Your task to perform on an android device: What's the weather today? Image 0: 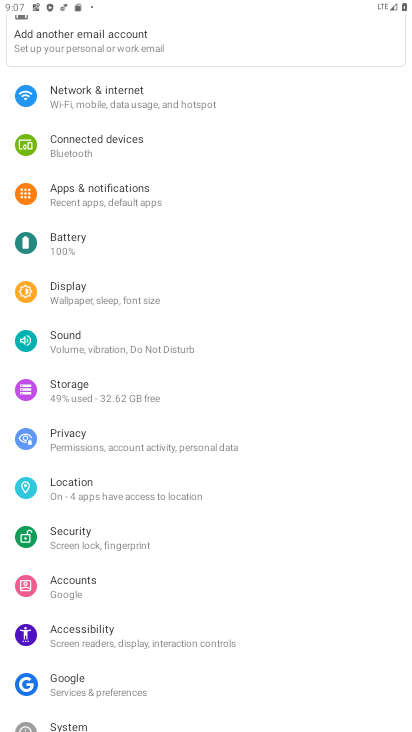
Step 0: press home button
Your task to perform on an android device: What's the weather today? Image 1: 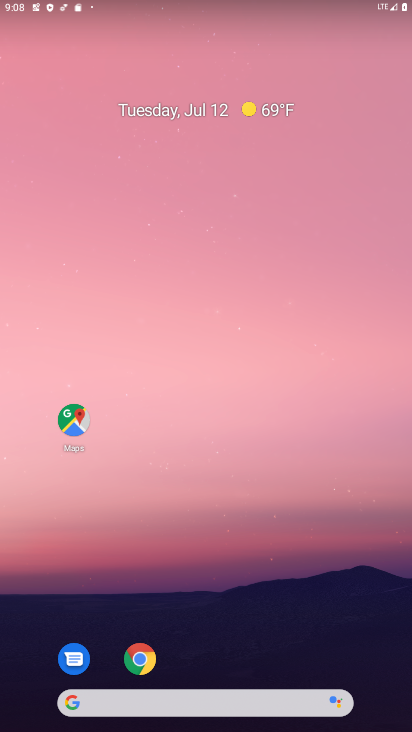
Step 1: click (250, 111)
Your task to perform on an android device: What's the weather today? Image 2: 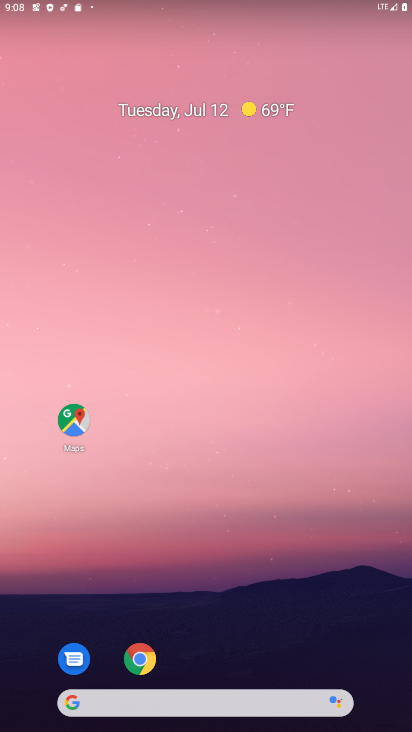
Step 2: click (250, 102)
Your task to perform on an android device: What's the weather today? Image 3: 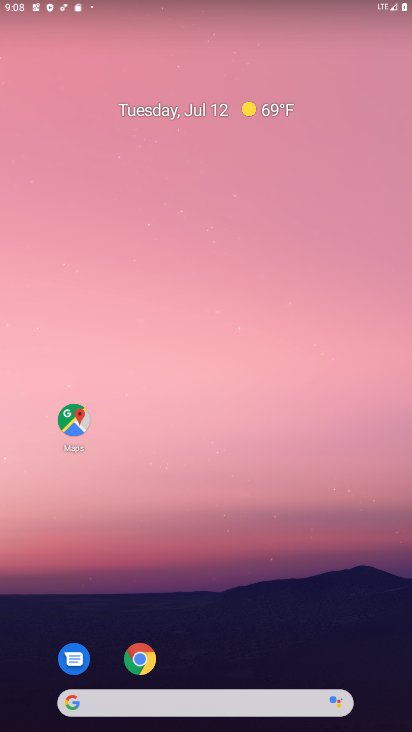
Step 3: click (250, 102)
Your task to perform on an android device: What's the weather today? Image 4: 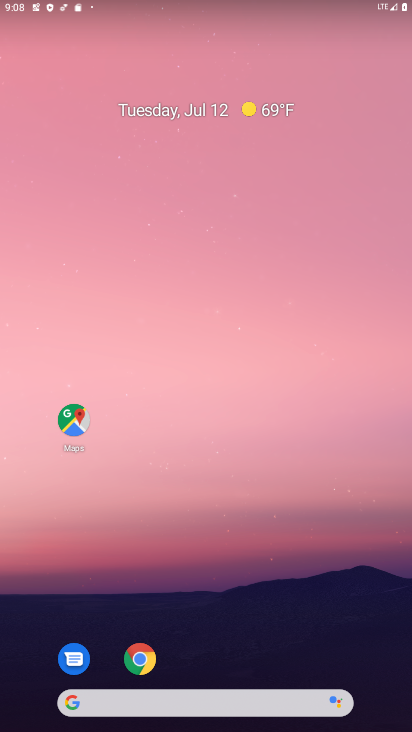
Step 4: click (249, 111)
Your task to perform on an android device: What's the weather today? Image 5: 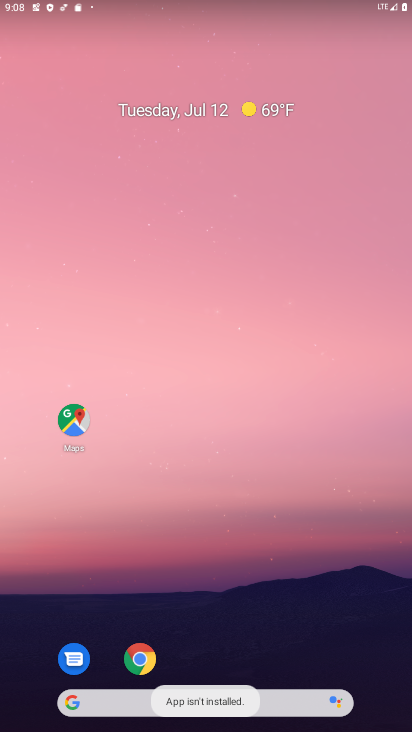
Step 5: click (249, 111)
Your task to perform on an android device: What's the weather today? Image 6: 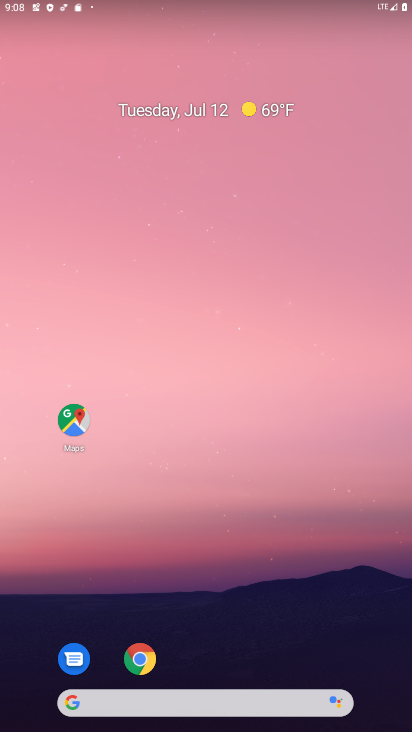
Step 6: click (249, 111)
Your task to perform on an android device: What's the weather today? Image 7: 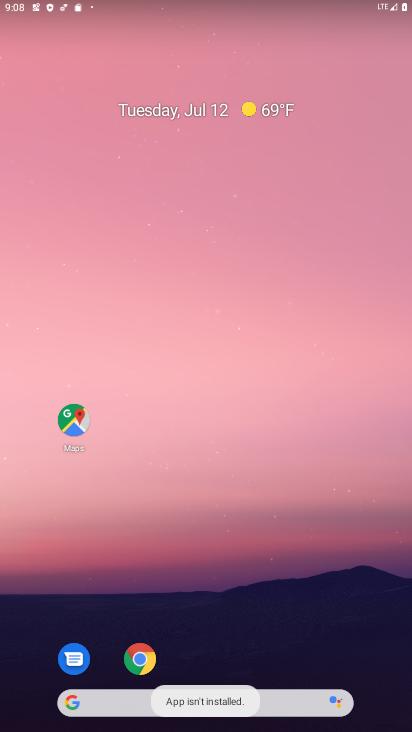
Step 7: click (249, 111)
Your task to perform on an android device: What's the weather today? Image 8: 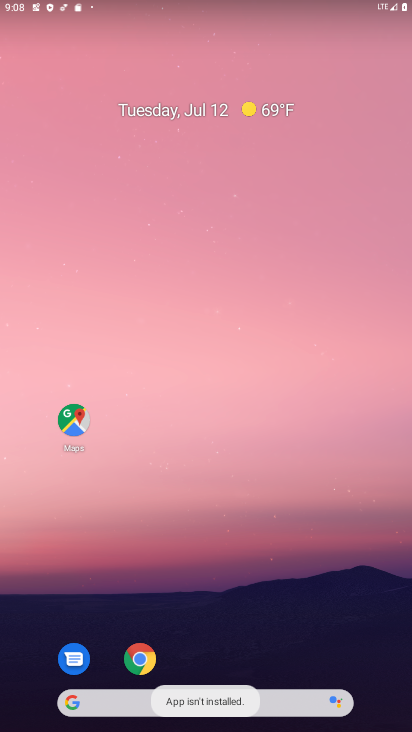
Step 8: click (249, 111)
Your task to perform on an android device: What's the weather today? Image 9: 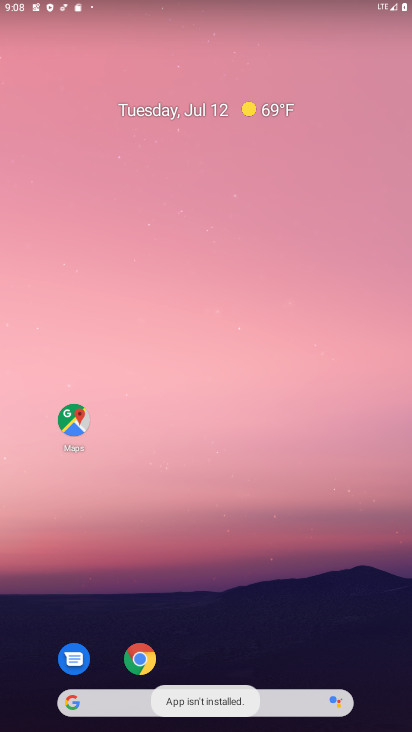
Step 9: click (249, 111)
Your task to perform on an android device: What's the weather today? Image 10: 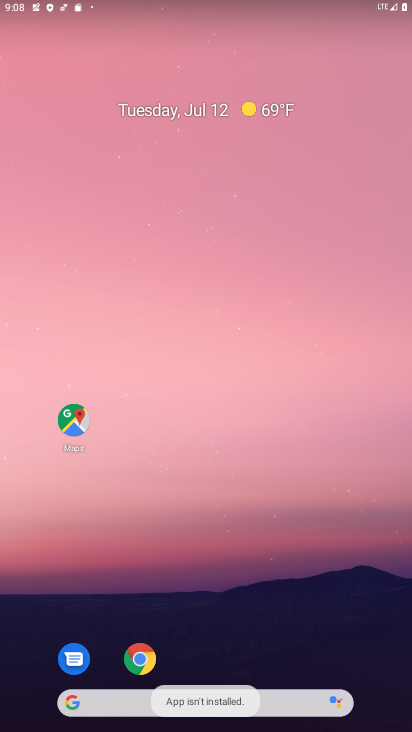
Step 10: click (264, 726)
Your task to perform on an android device: What's the weather today? Image 11: 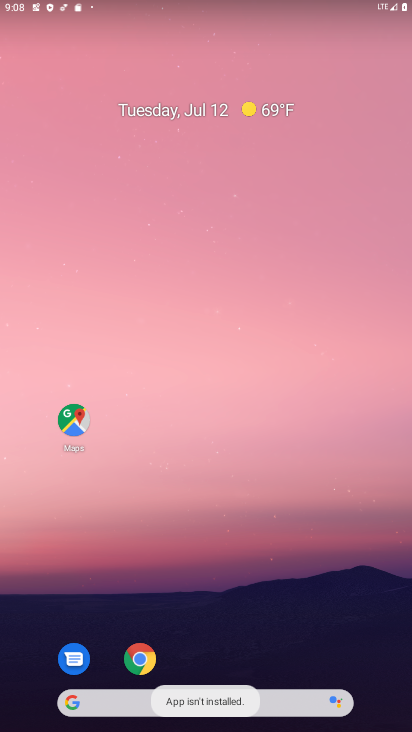
Step 11: drag from (236, 330) to (236, 149)
Your task to perform on an android device: What's the weather today? Image 12: 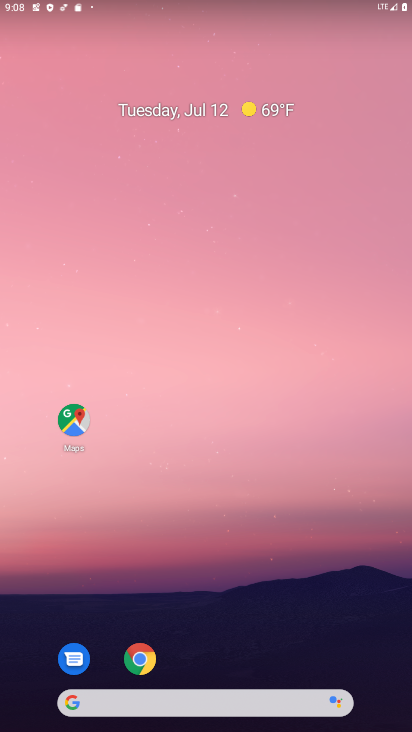
Step 12: drag from (226, 715) to (217, 117)
Your task to perform on an android device: What's the weather today? Image 13: 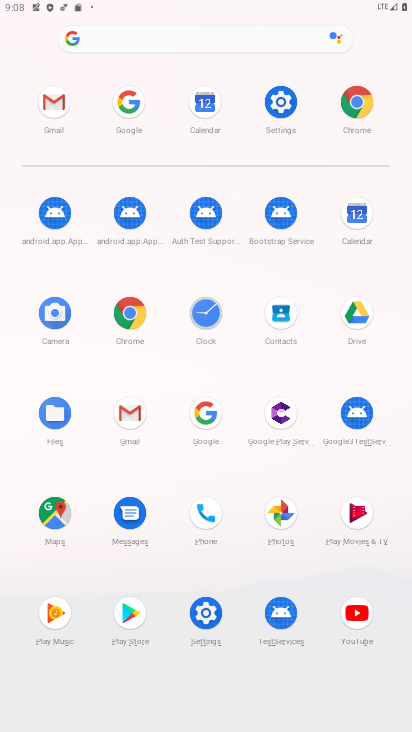
Step 13: click (201, 415)
Your task to perform on an android device: What's the weather today? Image 14: 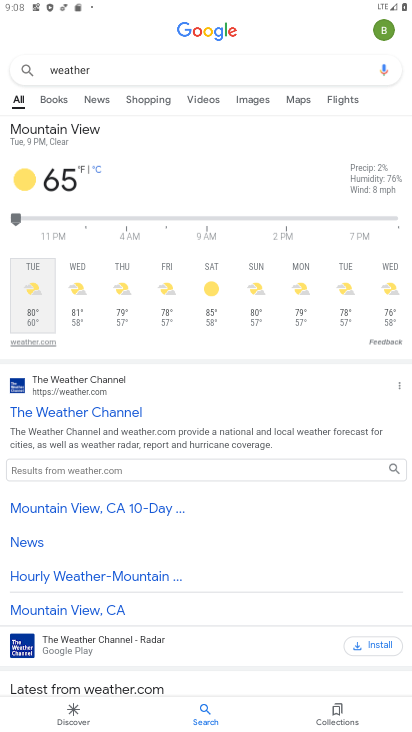
Step 14: task complete